Your task to perform on an android device: see creations saved in the google photos Image 0: 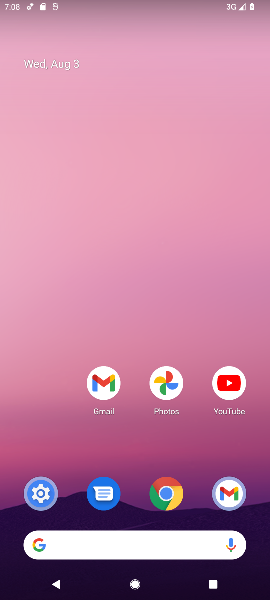
Step 0: drag from (121, 502) to (141, 110)
Your task to perform on an android device: see creations saved in the google photos Image 1: 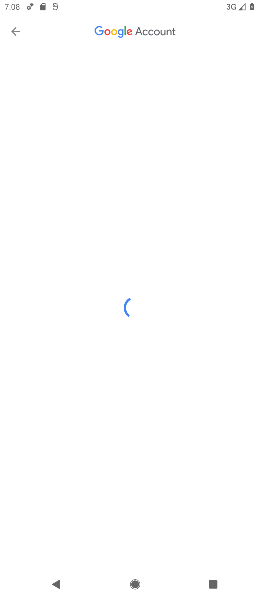
Step 1: click (6, 26)
Your task to perform on an android device: see creations saved in the google photos Image 2: 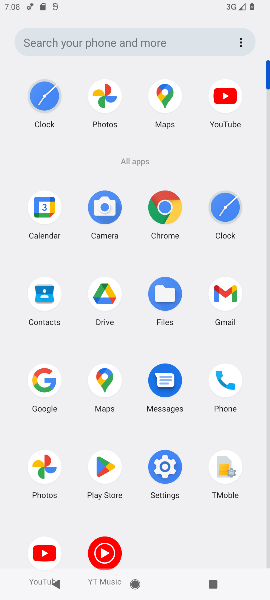
Step 2: click (47, 465)
Your task to perform on an android device: see creations saved in the google photos Image 3: 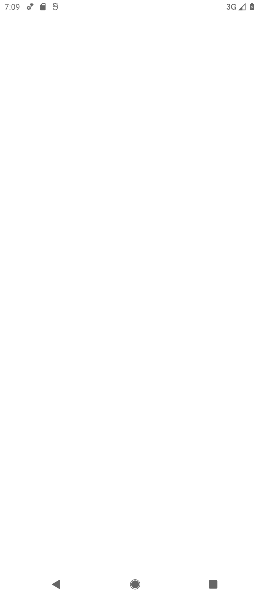
Step 3: task complete